Your task to perform on an android device: move an email to a new category in the gmail app Image 0: 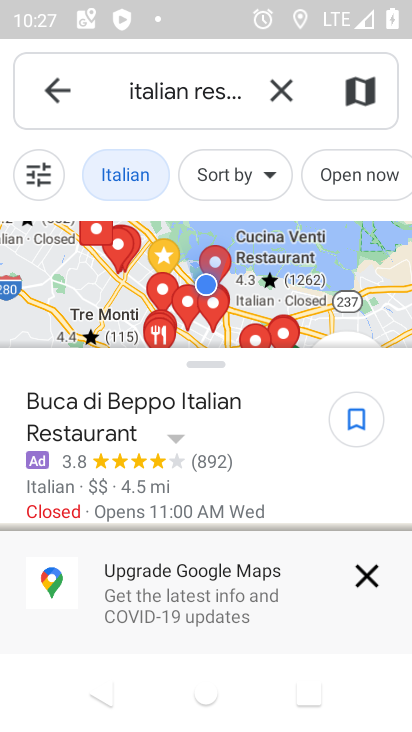
Step 0: press home button
Your task to perform on an android device: move an email to a new category in the gmail app Image 1: 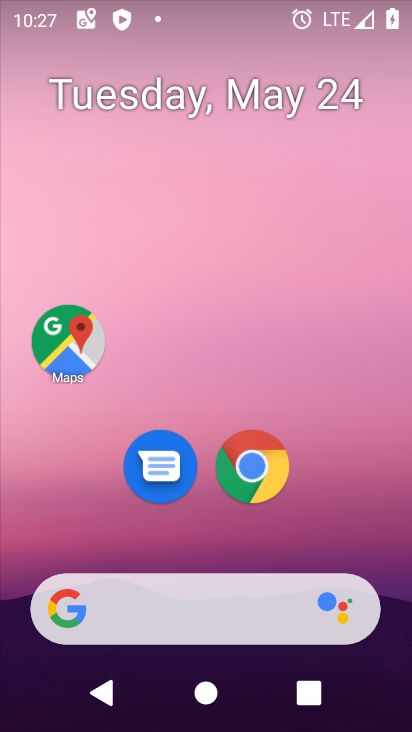
Step 1: drag from (385, 552) to (390, 254)
Your task to perform on an android device: move an email to a new category in the gmail app Image 2: 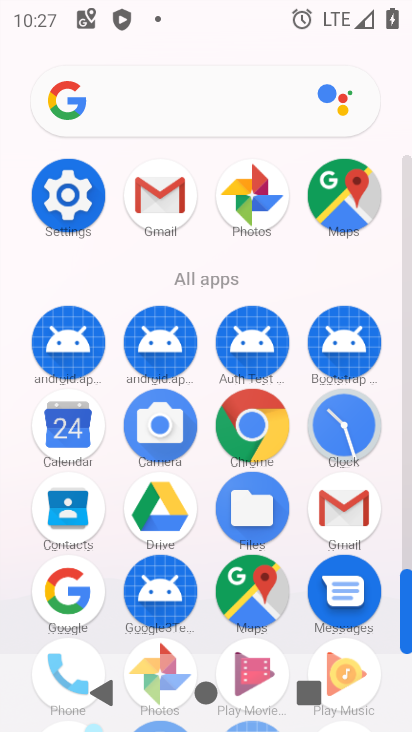
Step 2: click (365, 524)
Your task to perform on an android device: move an email to a new category in the gmail app Image 3: 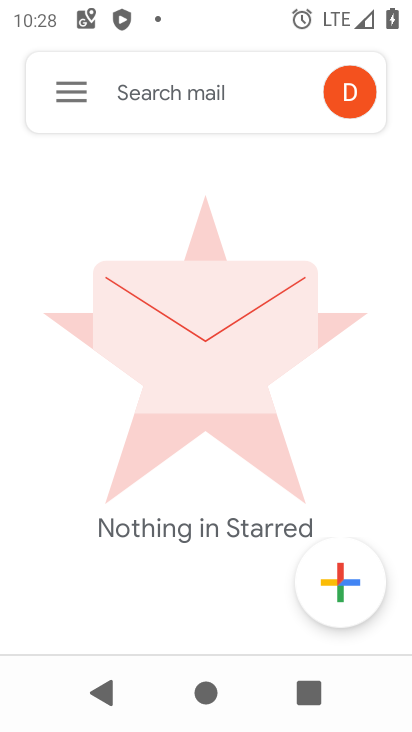
Step 3: click (90, 101)
Your task to perform on an android device: move an email to a new category in the gmail app Image 4: 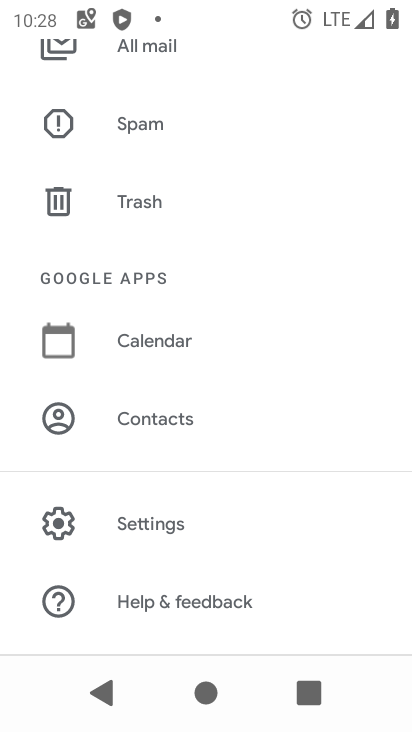
Step 4: drag from (309, 361) to (309, 415)
Your task to perform on an android device: move an email to a new category in the gmail app Image 5: 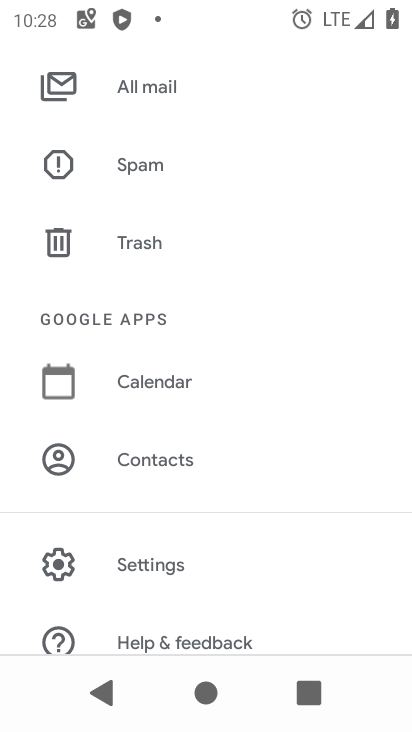
Step 5: drag from (320, 309) to (320, 367)
Your task to perform on an android device: move an email to a new category in the gmail app Image 6: 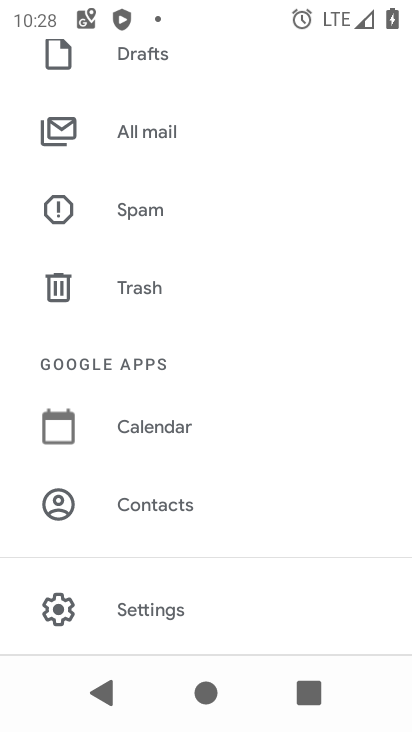
Step 6: drag from (330, 282) to (323, 352)
Your task to perform on an android device: move an email to a new category in the gmail app Image 7: 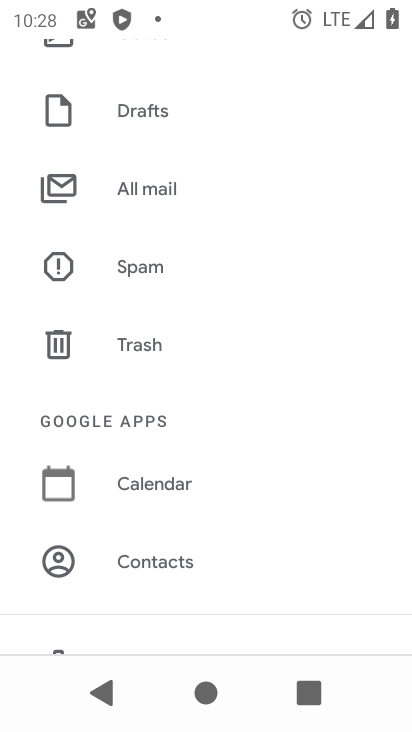
Step 7: drag from (315, 262) to (319, 325)
Your task to perform on an android device: move an email to a new category in the gmail app Image 8: 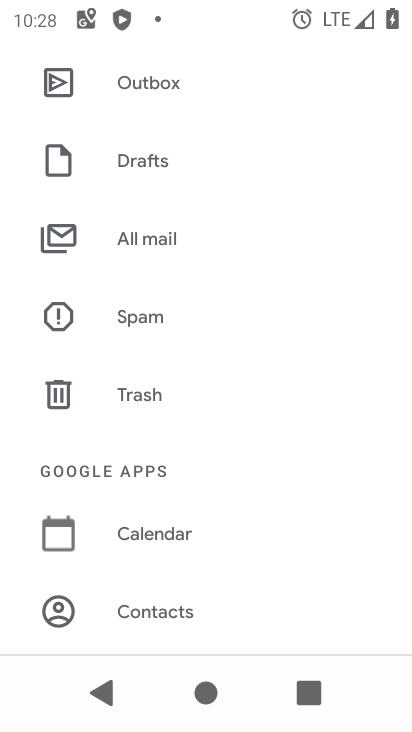
Step 8: drag from (305, 234) to (304, 331)
Your task to perform on an android device: move an email to a new category in the gmail app Image 9: 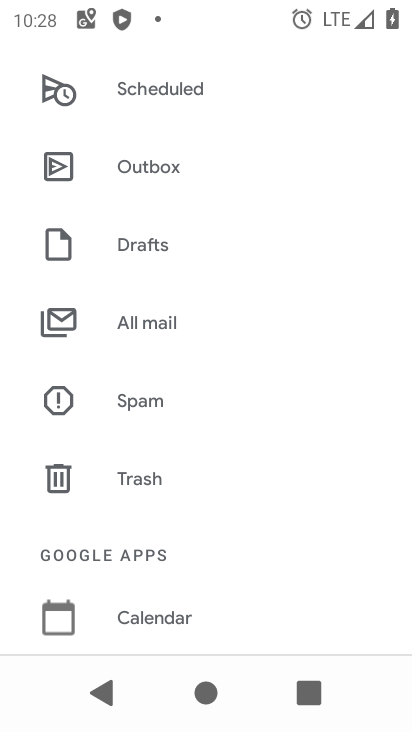
Step 9: drag from (295, 243) to (286, 349)
Your task to perform on an android device: move an email to a new category in the gmail app Image 10: 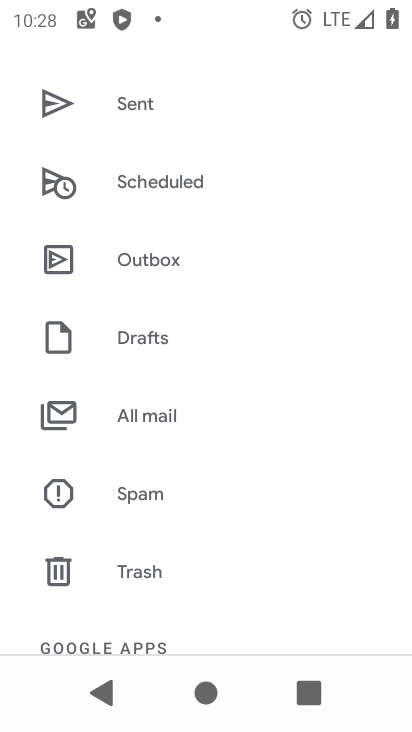
Step 10: drag from (275, 249) to (273, 327)
Your task to perform on an android device: move an email to a new category in the gmail app Image 11: 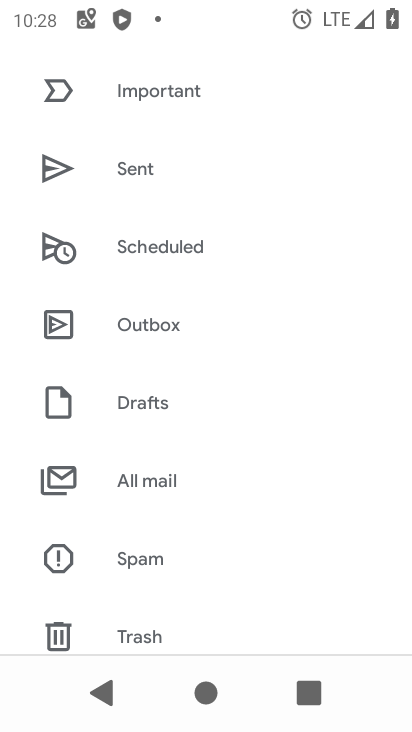
Step 11: drag from (284, 259) to (288, 353)
Your task to perform on an android device: move an email to a new category in the gmail app Image 12: 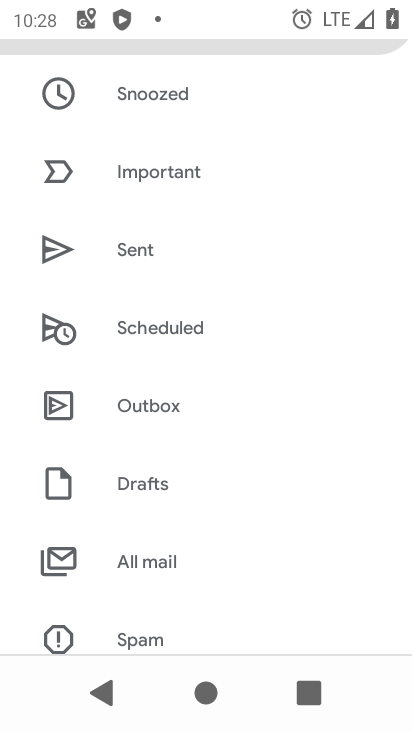
Step 12: drag from (296, 254) to (280, 357)
Your task to perform on an android device: move an email to a new category in the gmail app Image 13: 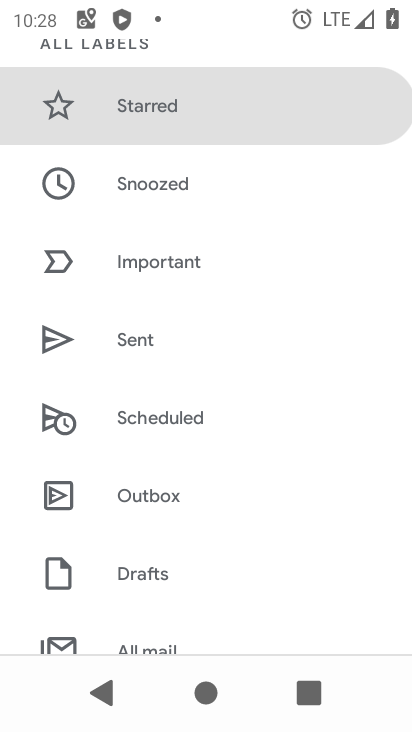
Step 13: drag from (303, 255) to (313, 349)
Your task to perform on an android device: move an email to a new category in the gmail app Image 14: 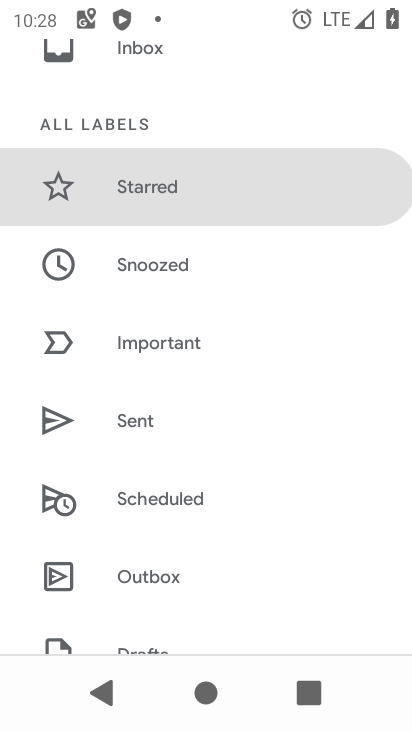
Step 14: drag from (320, 268) to (307, 418)
Your task to perform on an android device: move an email to a new category in the gmail app Image 15: 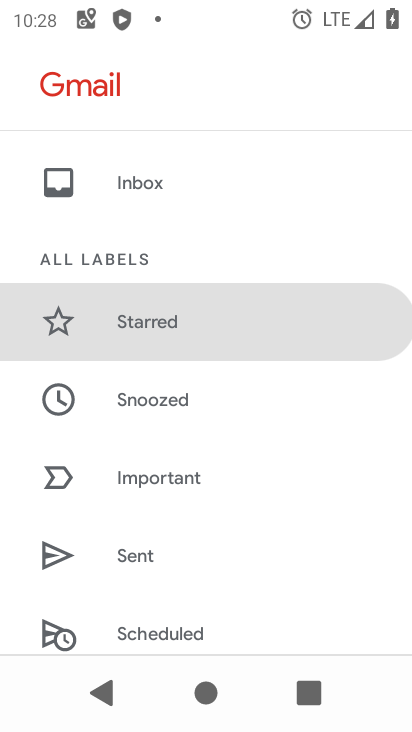
Step 15: drag from (304, 278) to (310, 400)
Your task to perform on an android device: move an email to a new category in the gmail app Image 16: 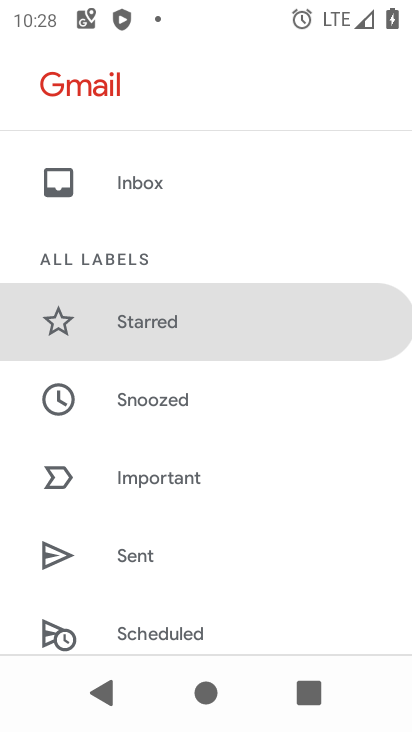
Step 16: click (162, 189)
Your task to perform on an android device: move an email to a new category in the gmail app Image 17: 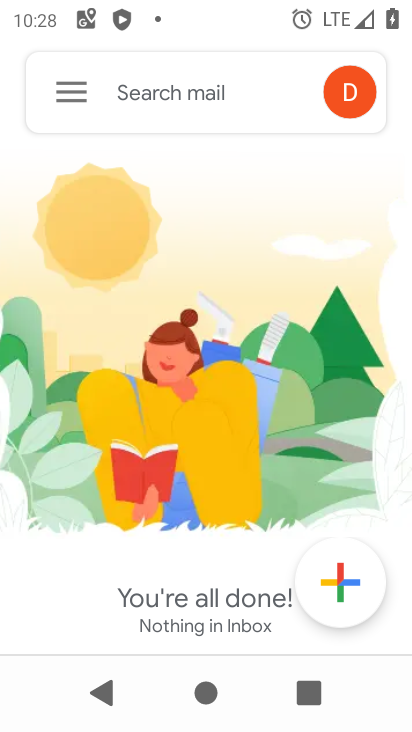
Step 17: task complete